Your task to perform on an android device: Go to ESPN.com Image 0: 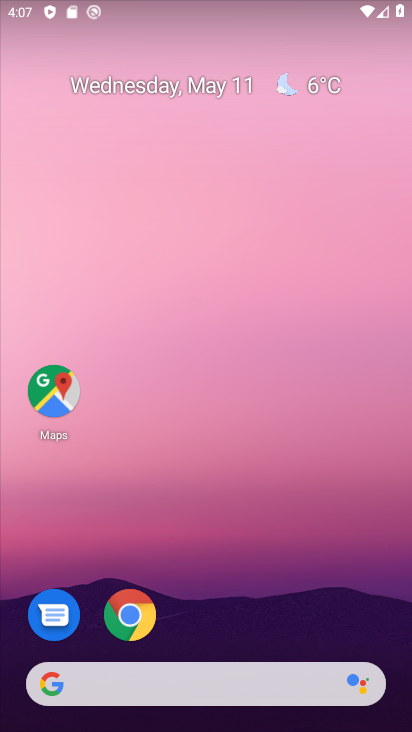
Step 0: click (141, 605)
Your task to perform on an android device: Go to ESPN.com Image 1: 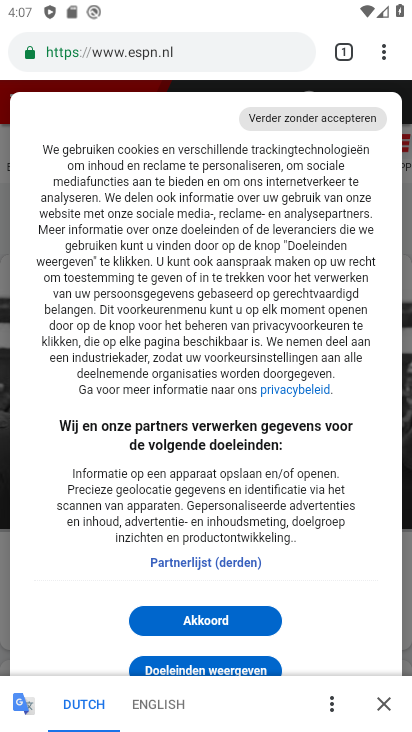
Step 1: click (231, 63)
Your task to perform on an android device: Go to ESPN.com Image 2: 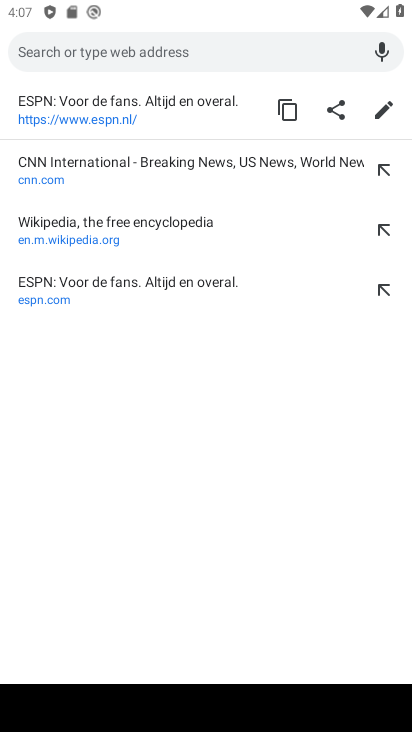
Step 2: click (210, 111)
Your task to perform on an android device: Go to ESPN.com Image 3: 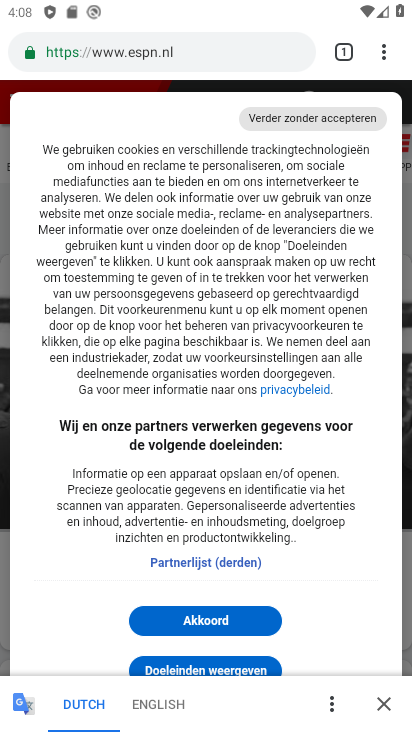
Step 3: task complete